Your task to perform on an android device: Is it going to rain today? Image 0: 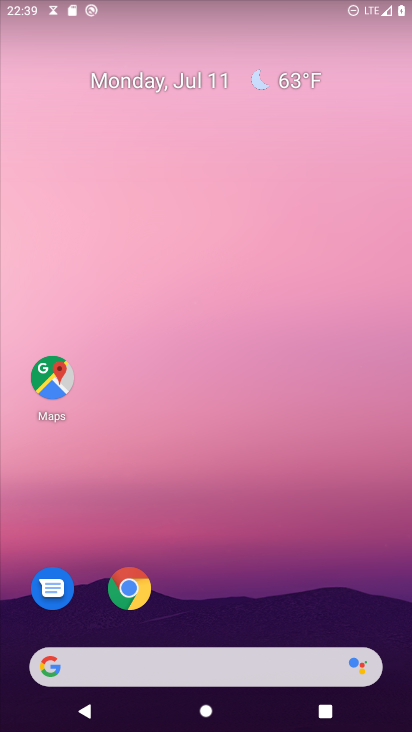
Step 0: press home button
Your task to perform on an android device: Is it going to rain today? Image 1: 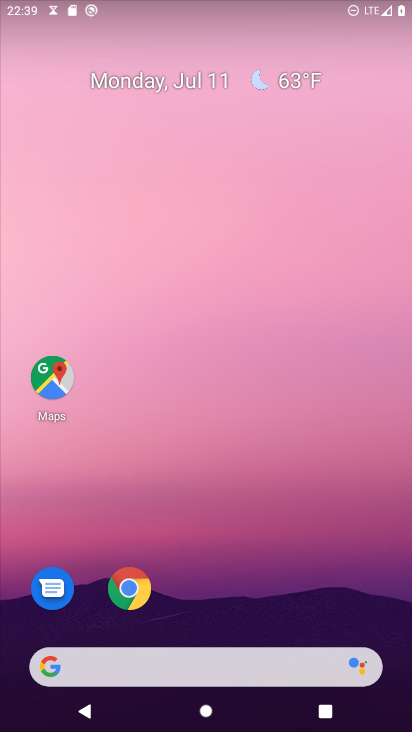
Step 1: click (43, 665)
Your task to perform on an android device: Is it going to rain today? Image 2: 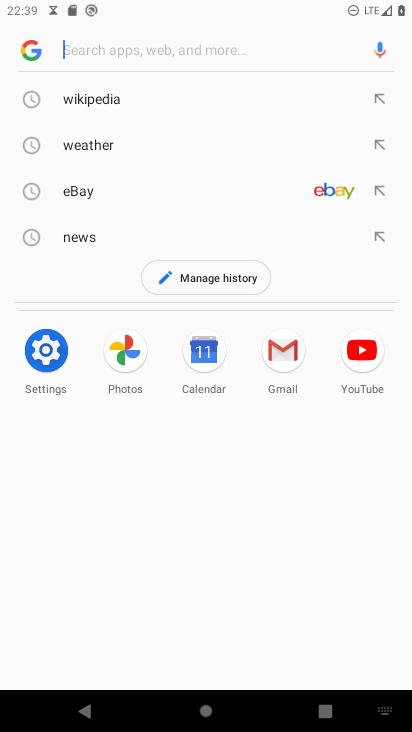
Step 2: type "rain today?"
Your task to perform on an android device: Is it going to rain today? Image 3: 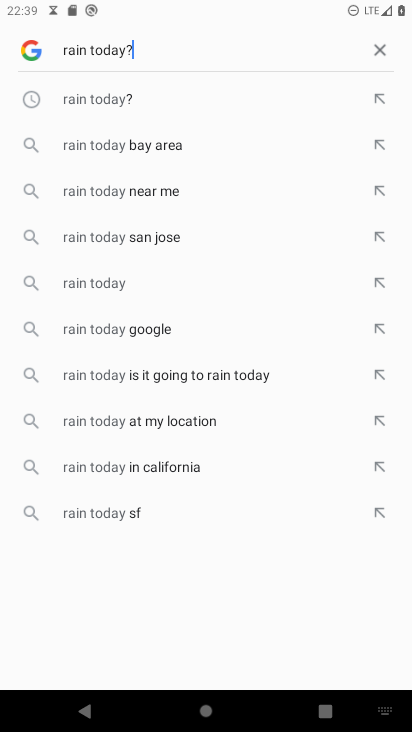
Step 3: press enter
Your task to perform on an android device: Is it going to rain today? Image 4: 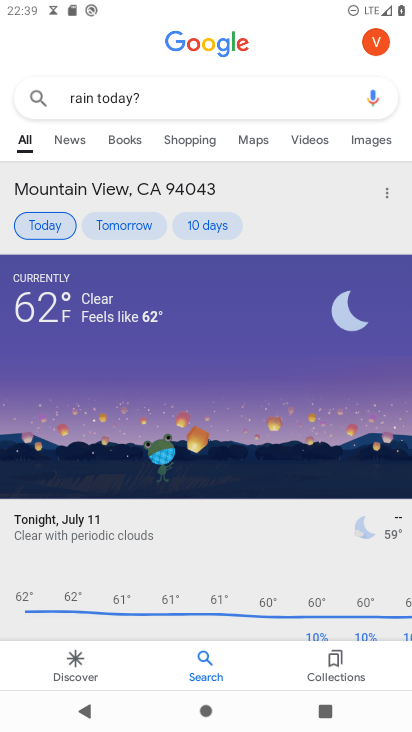
Step 4: task complete